Your task to perform on an android device: change the clock display to show seconds Image 0: 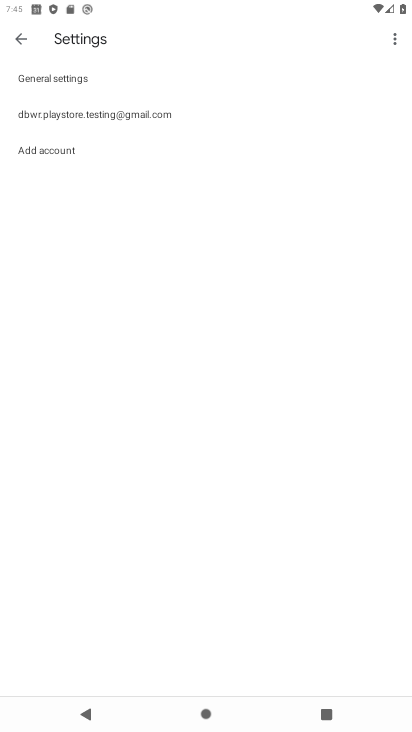
Step 0: press home button
Your task to perform on an android device: change the clock display to show seconds Image 1: 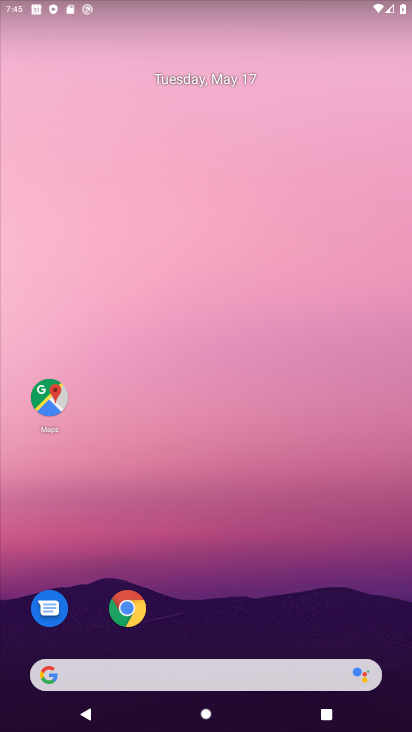
Step 1: drag from (226, 633) to (355, 107)
Your task to perform on an android device: change the clock display to show seconds Image 2: 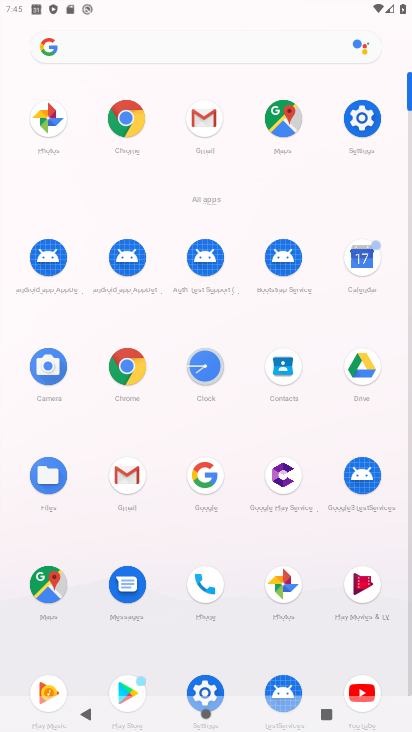
Step 2: click (209, 386)
Your task to perform on an android device: change the clock display to show seconds Image 3: 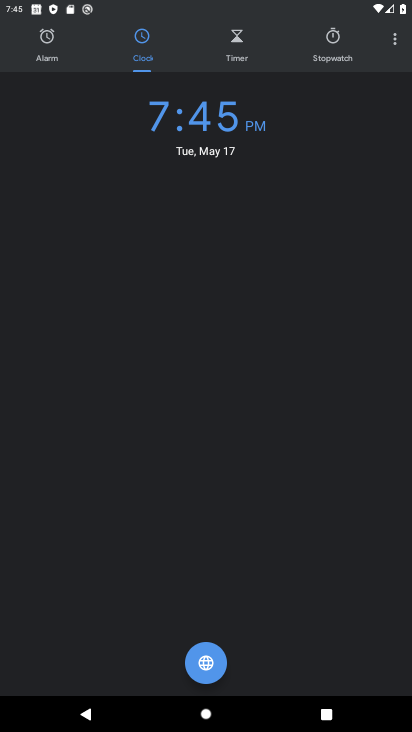
Step 3: click (396, 41)
Your task to perform on an android device: change the clock display to show seconds Image 4: 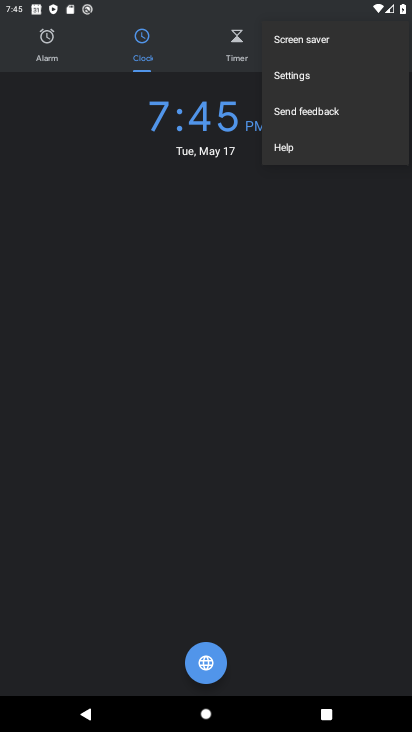
Step 4: click (303, 81)
Your task to perform on an android device: change the clock display to show seconds Image 5: 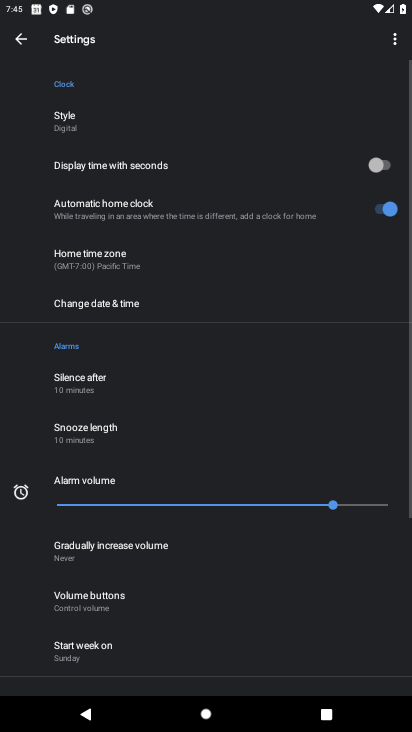
Step 5: click (97, 128)
Your task to perform on an android device: change the clock display to show seconds Image 6: 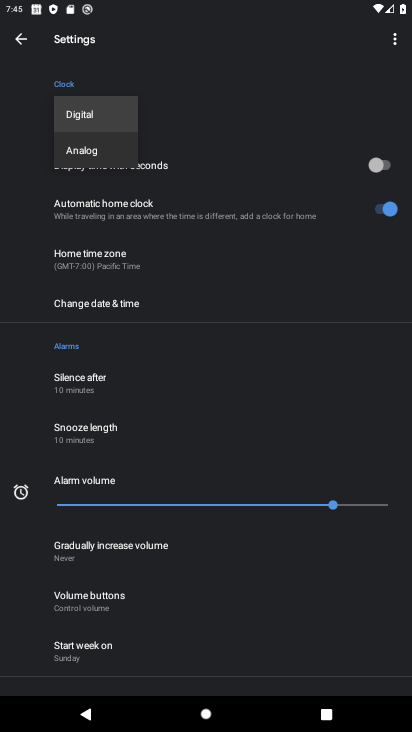
Step 6: click (93, 148)
Your task to perform on an android device: change the clock display to show seconds Image 7: 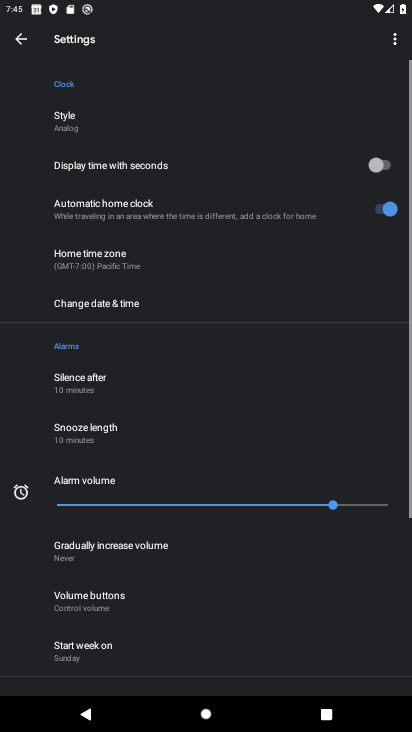
Step 7: click (388, 168)
Your task to perform on an android device: change the clock display to show seconds Image 8: 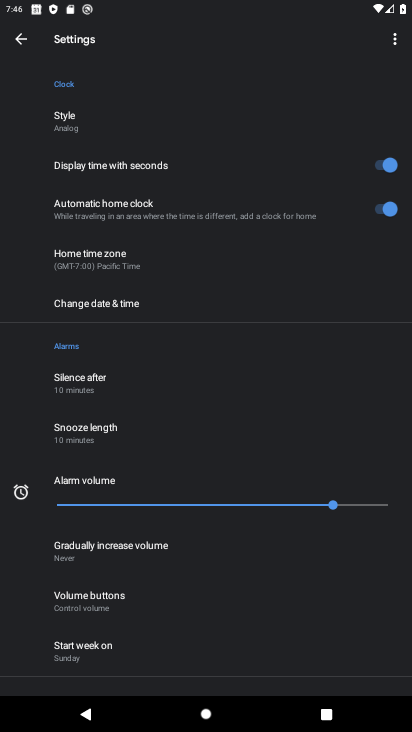
Step 8: task complete